Your task to perform on an android device: Go to Amazon Image 0: 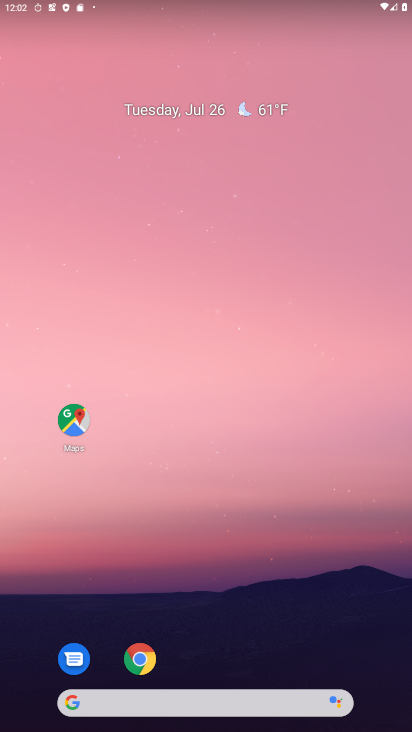
Step 0: click (103, 699)
Your task to perform on an android device: Go to Amazon Image 1: 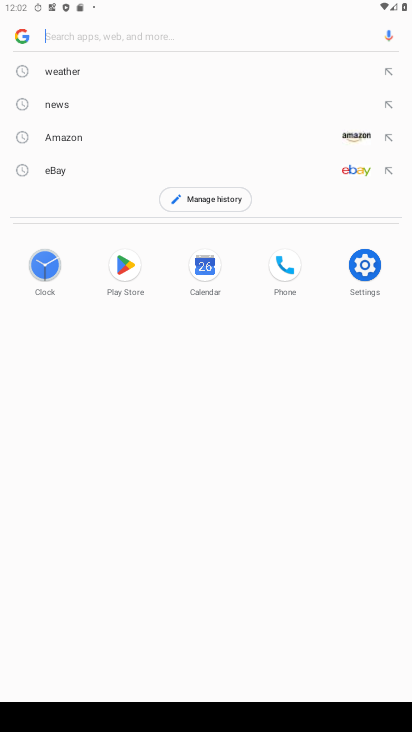
Step 1: click (80, 141)
Your task to perform on an android device: Go to Amazon Image 2: 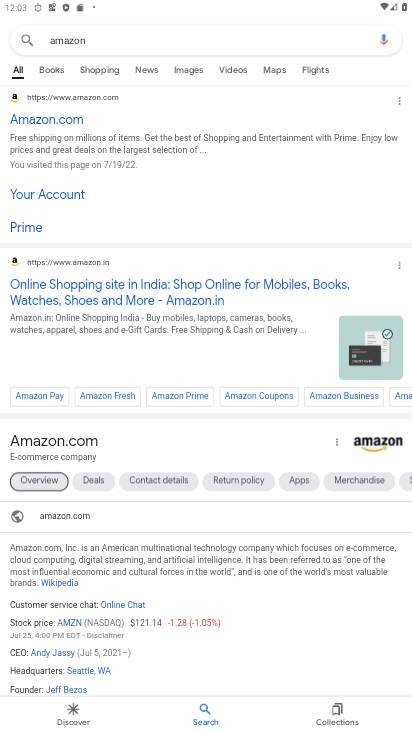
Step 2: task complete